Your task to perform on an android device: toggle sleep mode Image 0: 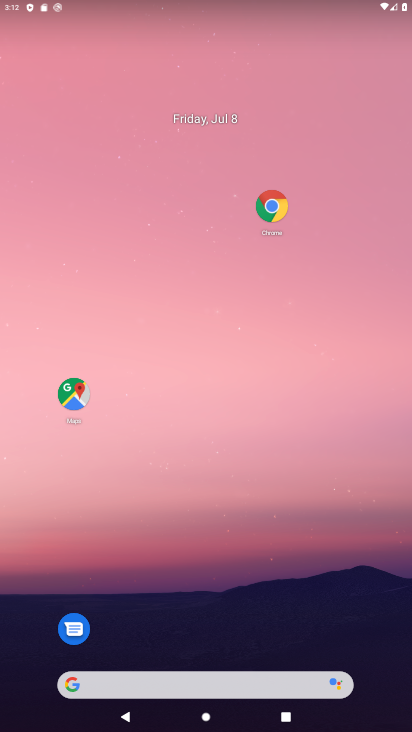
Step 0: drag from (192, 579) to (218, 392)
Your task to perform on an android device: toggle sleep mode Image 1: 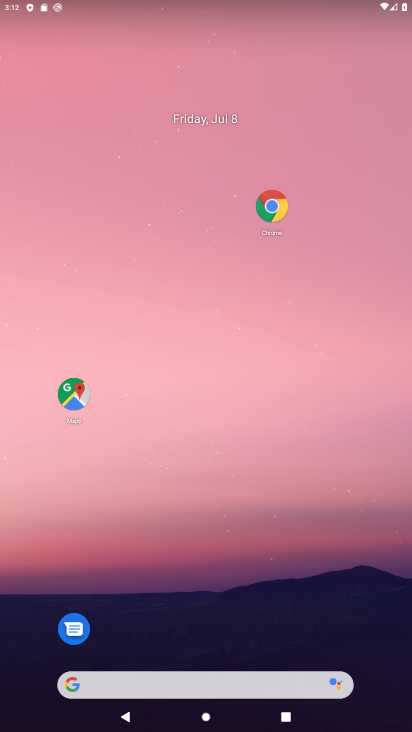
Step 1: drag from (173, 624) to (192, 112)
Your task to perform on an android device: toggle sleep mode Image 2: 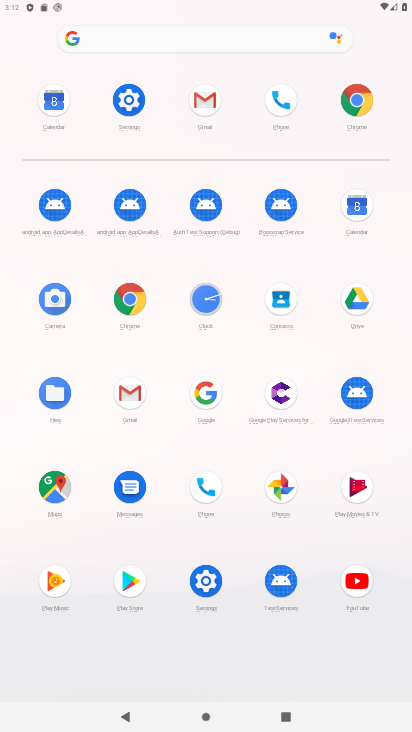
Step 2: click (206, 588)
Your task to perform on an android device: toggle sleep mode Image 3: 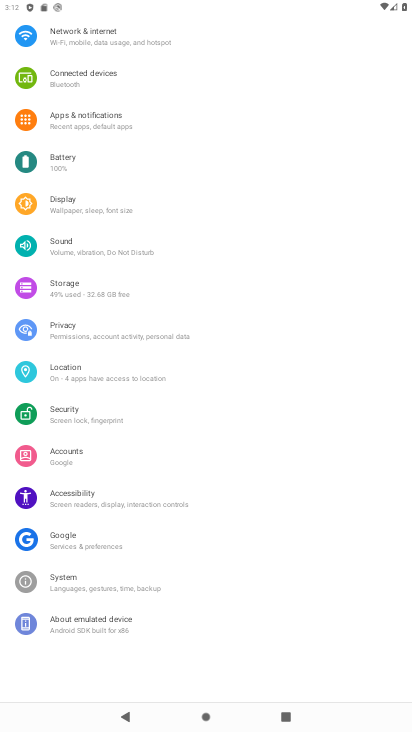
Step 3: drag from (199, 571) to (287, 159)
Your task to perform on an android device: toggle sleep mode Image 4: 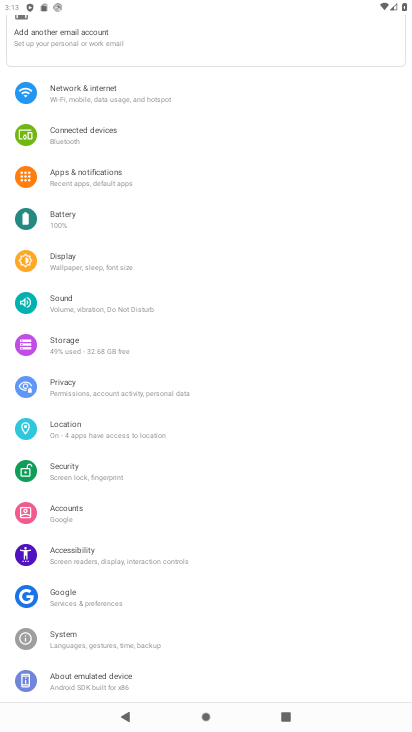
Step 4: drag from (177, 156) to (199, 730)
Your task to perform on an android device: toggle sleep mode Image 5: 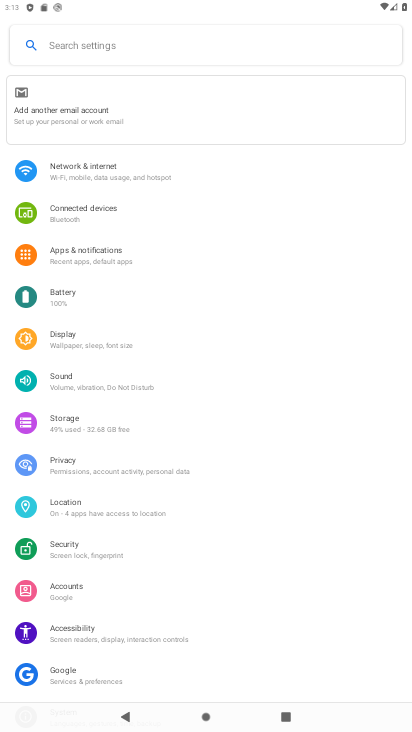
Step 5: drag from (134, 589) to (192, 210)
Your task to perform on an android device: toggle sleep mode Image 6: 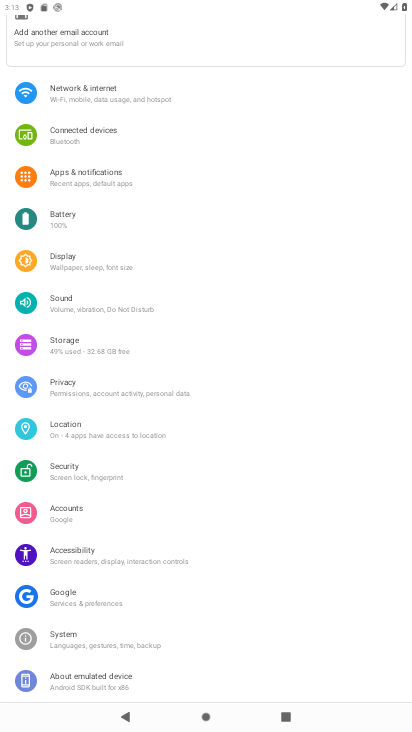
Step 6: drag from (106, 619) to (149, 315)
Your task to perform on an android device: toggle sleep mode Image 7: 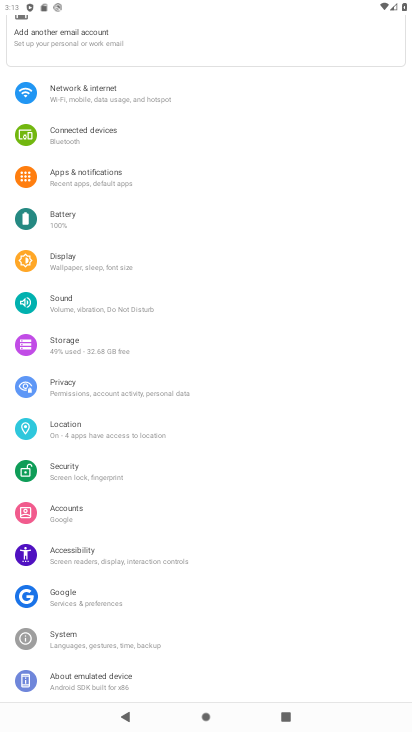
Step 7: drag from (142, 532) to (156, 302)
Your task to perform on an android device: toggle sleep mode Image 8: 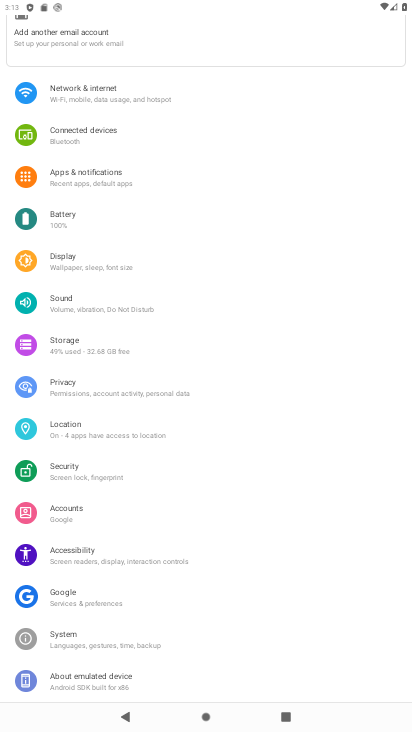
Step 8: drag from (163, 562) to (169, 326)
Your task to perform on an android device: toggle sleep mode Image 9: 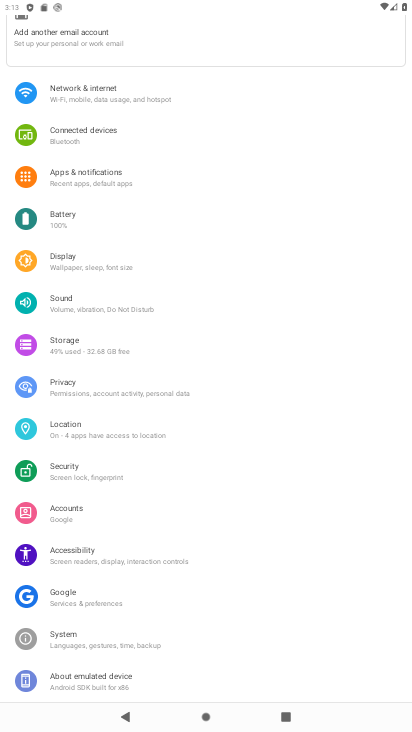
Step 9: click (90, 261)
Your task to perform on an android device: toggle sleep mode Image 10: 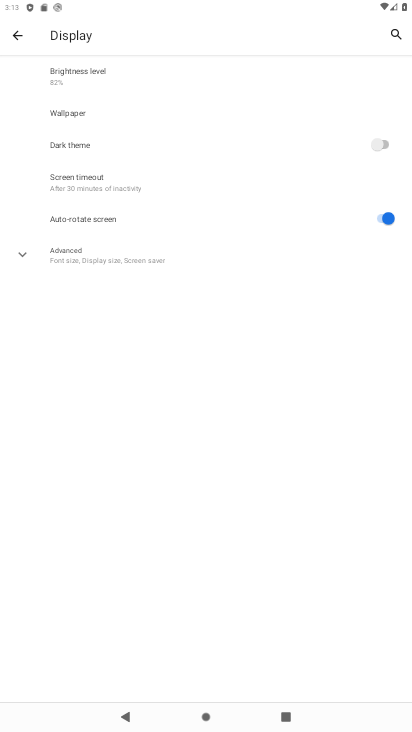
Step 10: click (128, 187)
Your task to perform on an android device: toggle sleep mode Image 11: 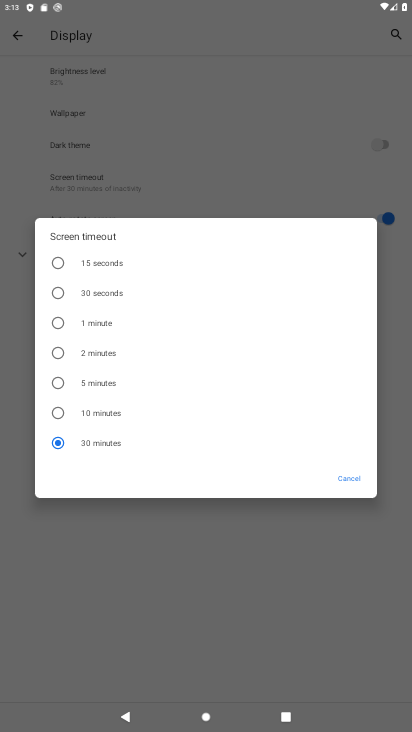
Step 11: task complete